Your task to perform on an android device: Open the map Image 0: 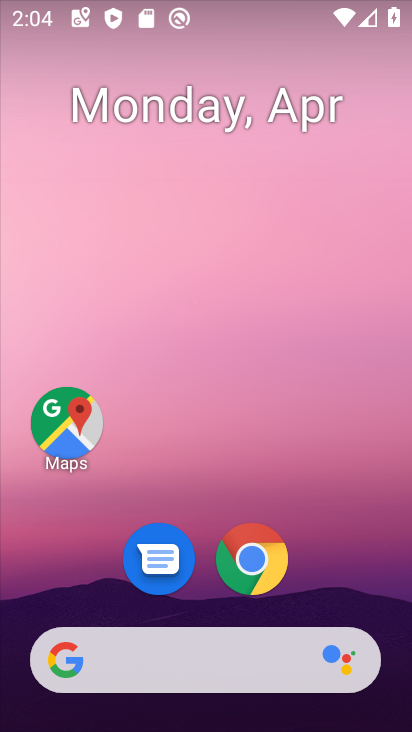
Step 0: click (92, 444)
Your task to perform on an android device: Open the map Image 1: 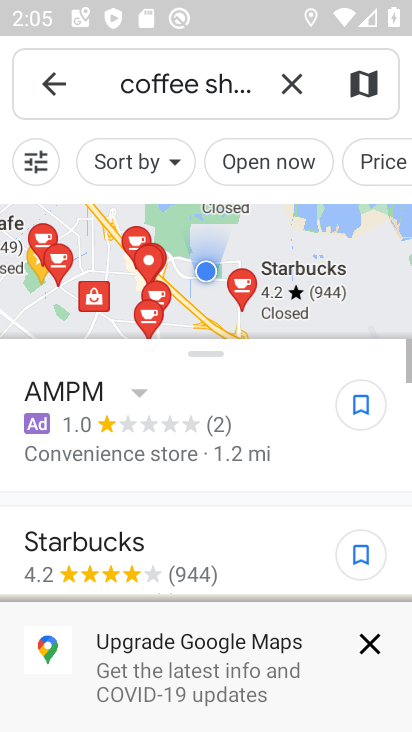
Step 1: task complete